Your task to perform on an android device: find which apps use the phone's location Image 0: 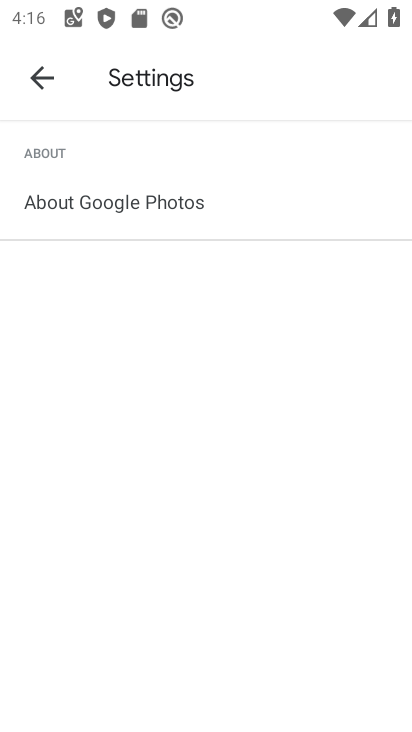
Step 0: press home button
Your task to perform on an android device: find which apps use the phone's location Image 1: 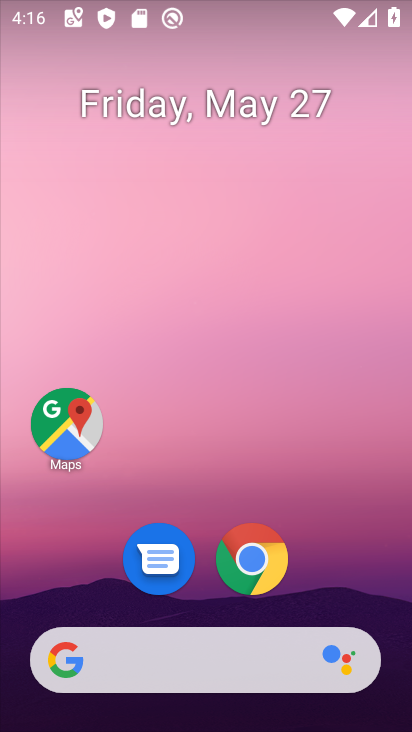
Step 1: drag from (394, 698) to (331, 301)
Your task to perform on an android device: find which apps use the phone's location Image 2: 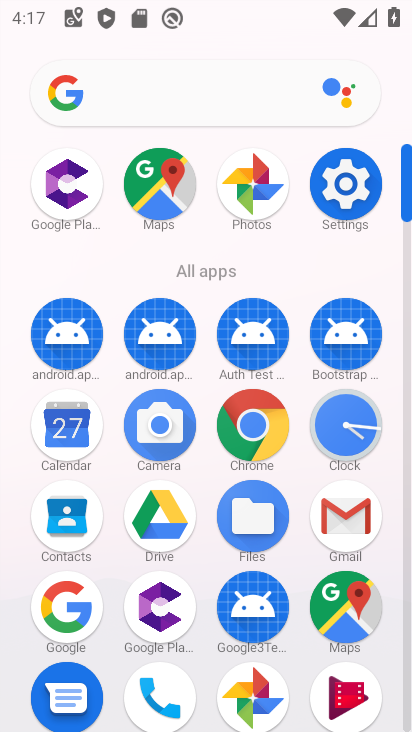
Step 2: click (349, 186)
Your task to perform on an android device: find which apps use the phone's location Image 3: 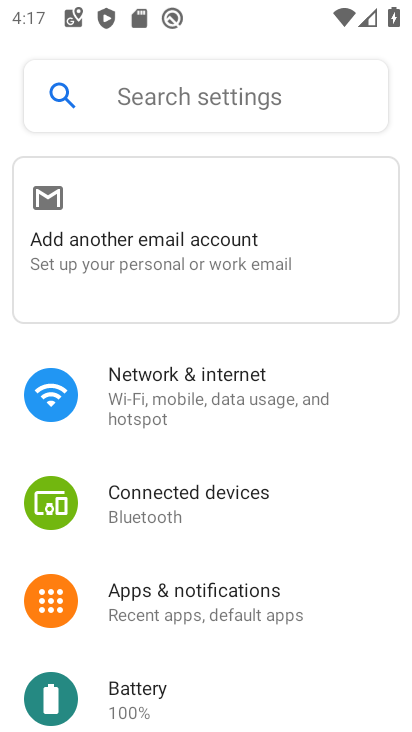
Step 3: drag from (354, 681) to (299, 269)
Your task to perform on an android device: find which apps use the phone's location Image 4: 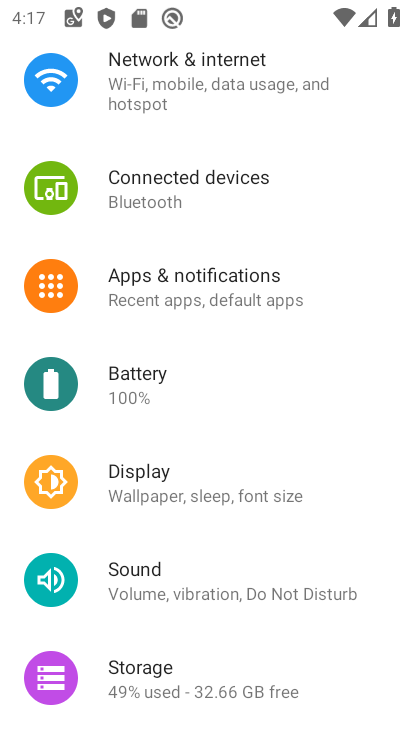
Step 4: drag from (350, 691) to (327, 269)
Your task to perform on an android device: find which apps use the phone's location Image 5: 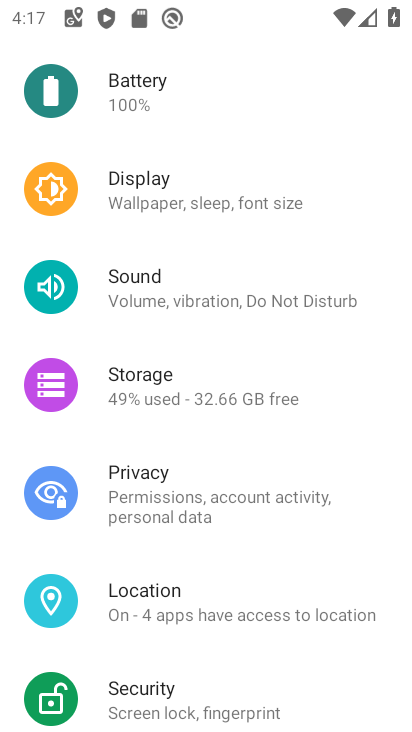
Step 5: click (163, 592)
Your task to perform on an android device: find which apps use the phone's location Image 6: 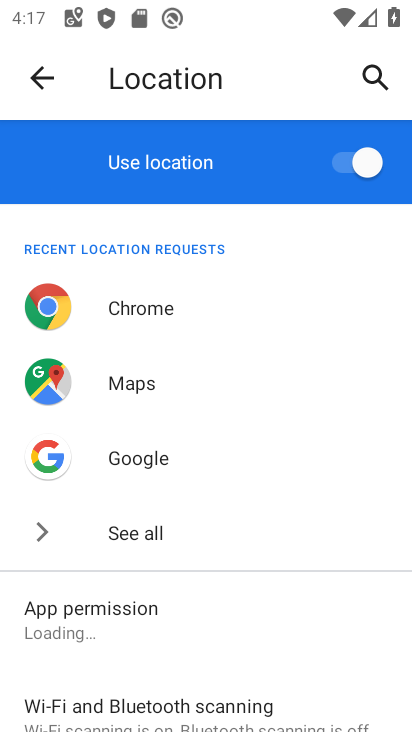
Step 6: drag from (276, 640) to (271, 350)
Your task to perform on an android device: find which apps use the phone's location Image 7: 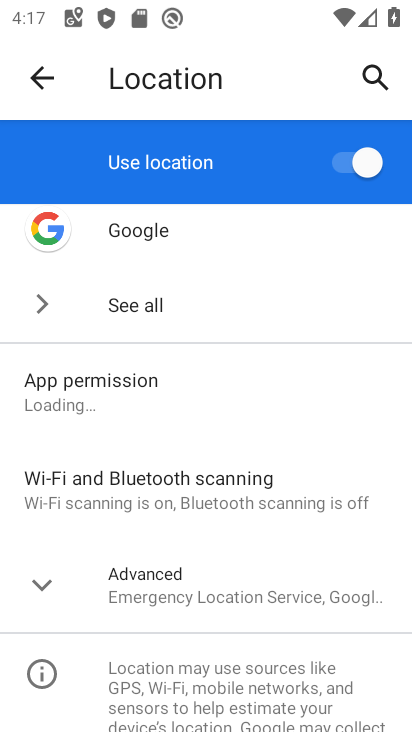
Step 7: click (92, 480)
Your task to perform on an android device: find which apps use the phone's location Image 8: 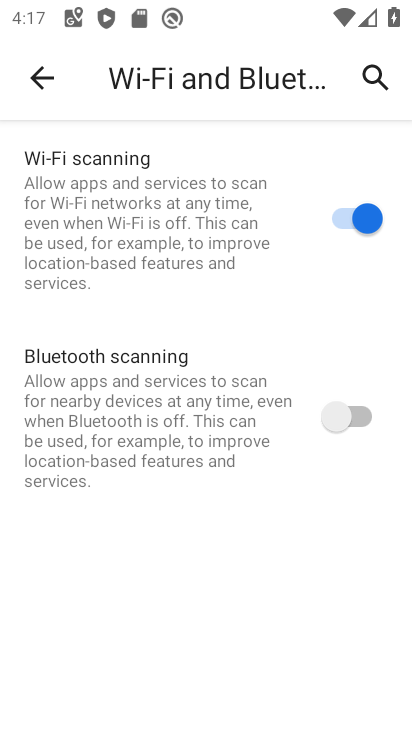
Step 8: click (43, 72)
Your task to perform on an android device: find which apps use the phone's location Image 9: 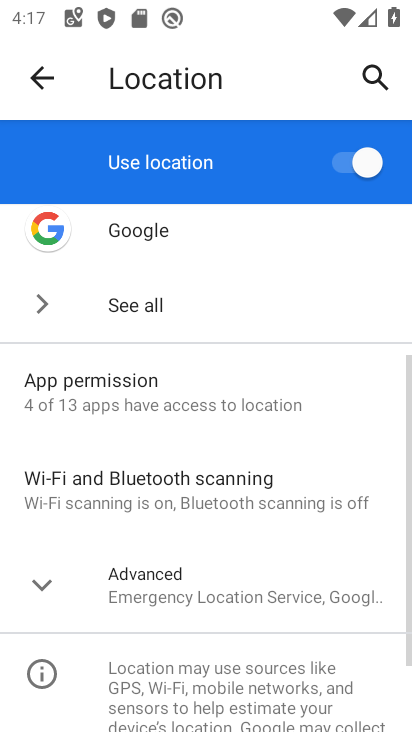
Step 9: click (66, 398)
Your task to perform on an android device: find which apps use the phone's location Image 10: 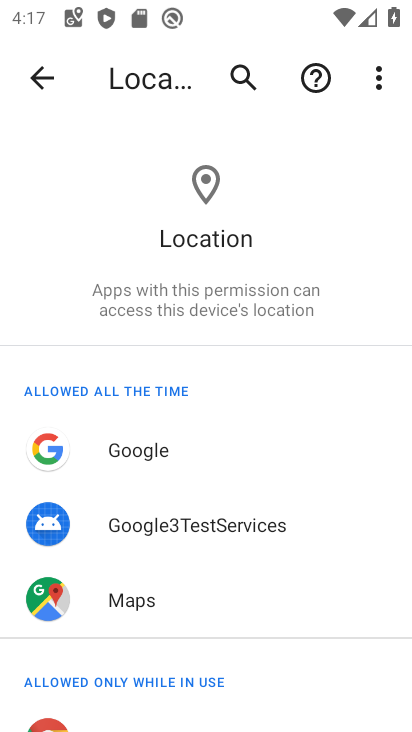
Step 10: task complete